Your task to perform on an android device: turn on priority inbox in the gmail app Image 0: 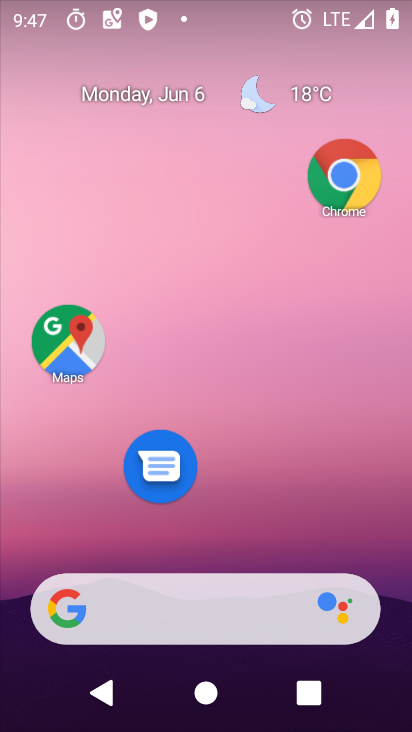
Step 0: drag from (212, 558) to (231, 174)
Your task to perform on an android device: turn on priority inbox in the gmail app Image 1: 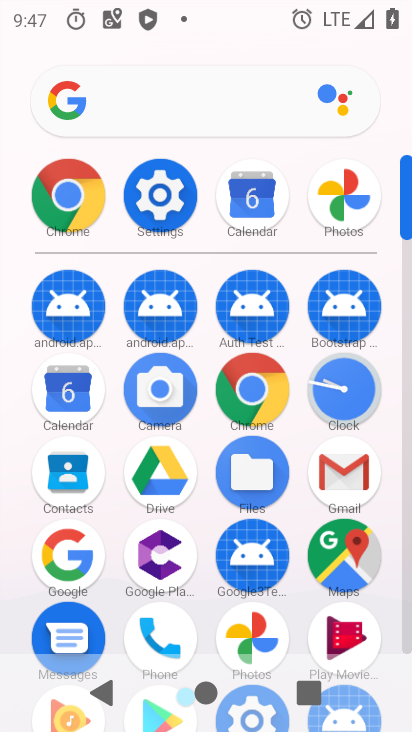
Step 1: click (355, 468)
Your task to perform on an android device: turn on priority inbox in the gmail app Image 2: 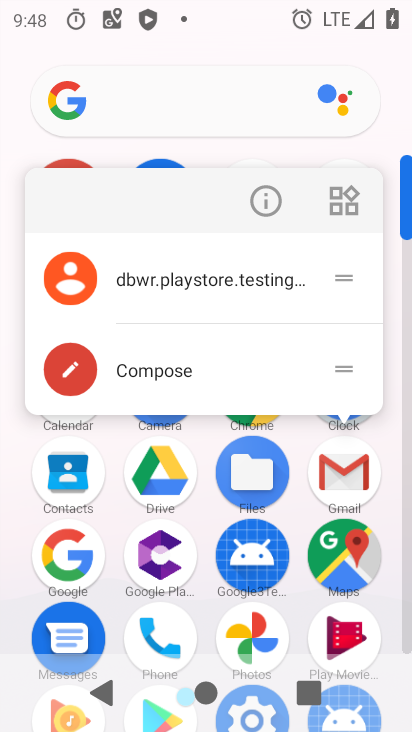
Step 2: click (259, 210)
Your task to perform on an android device: turn on priority inbox in the gmail app Image 3: 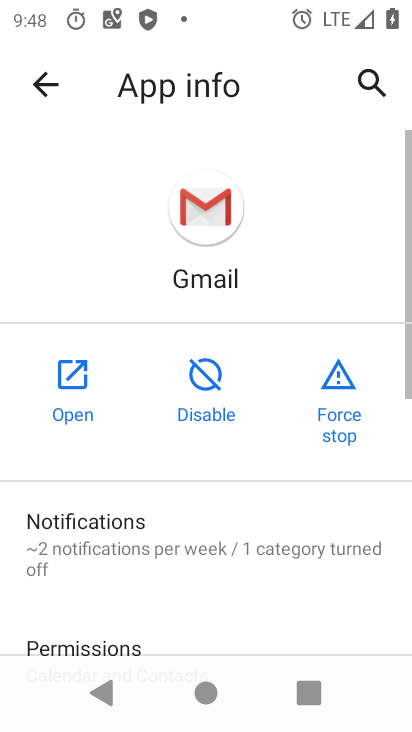
Step 3: click (75, 357)
Your task to perform on an android device: turn on priority inbox in the gmail app Image 4: 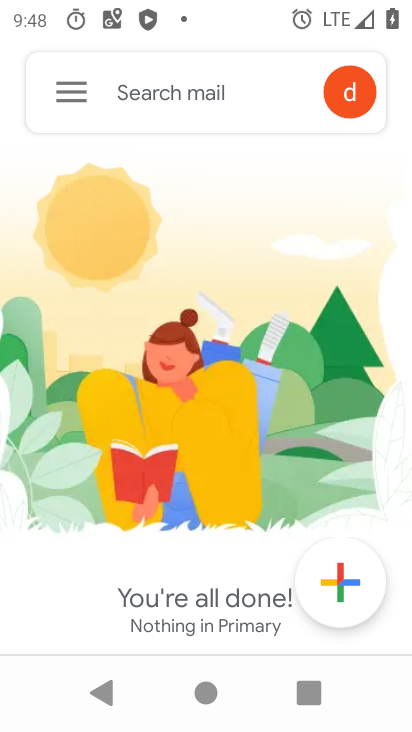
Step 4: click (50, 91)
Your task to perform on an android device: turn on priority inbox in the gmail app Image 5: 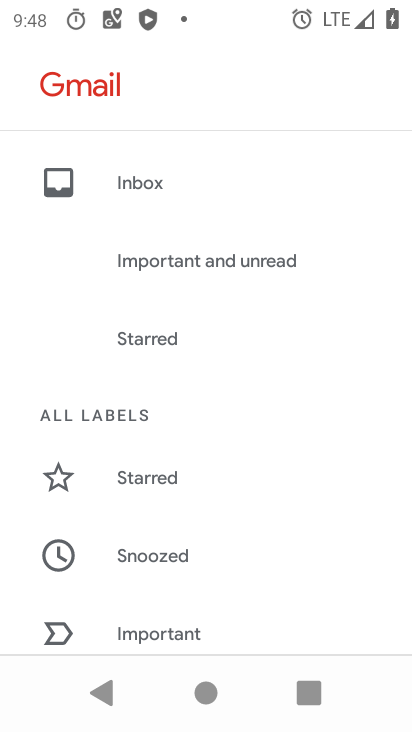
Step 5: drag from (188, 568) to (317, 25)
Your task to perform on an android device: turn on priority inbox in the gmail app Image 6: 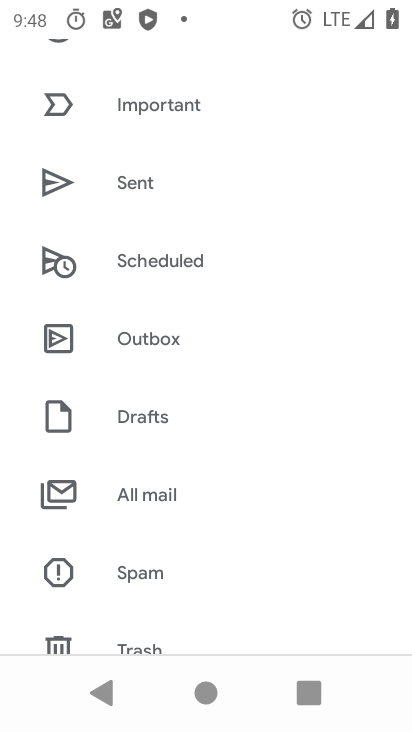
Step 6: drag from (203, 568) to (234, 115)
Your task to perform on an android device: turn on priority inbox in the gmail app Image 7: 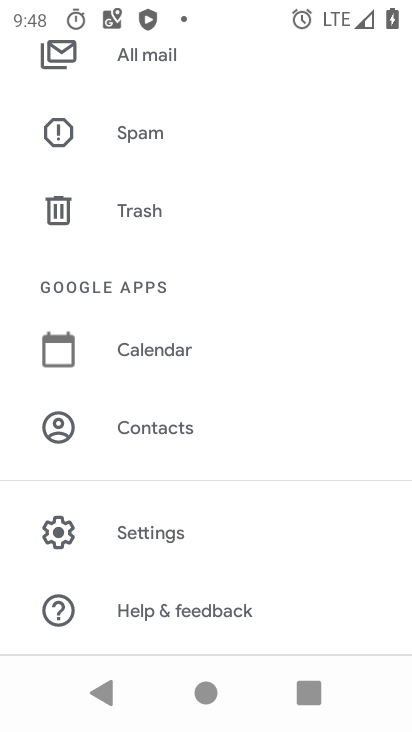
Step 7: click (142, 537)
Your task to perform on an android device: turn on priority inbox in the gmail app Image 8: 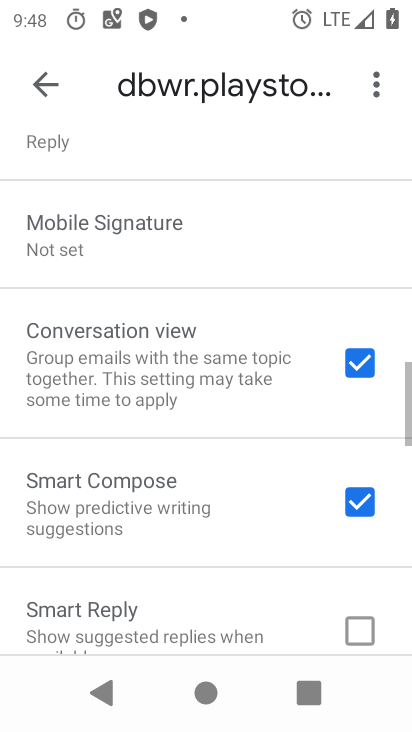
Step 8: drag from (121, 546) to (207, 722)
Your task to perform on an android device: turn on priority inbox in the gmail app Image 9: 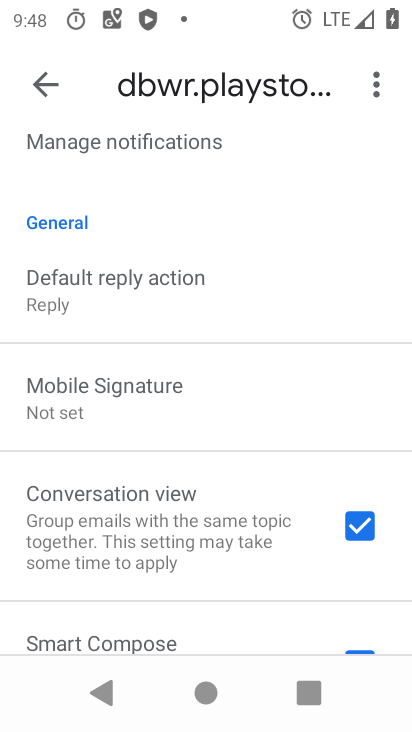
Step 9: drag from (145, 280) to (228, 731)
Your task to perform on an android device: turn on priority inbox in the gmail app Image 10: 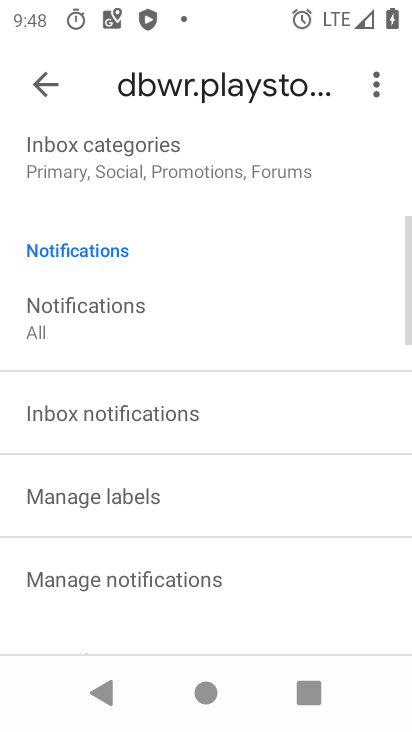
Step 10: drag from (178, 260) to (281, 731)
Your task to perform on an android device: turn on priority inbox in the gmail app Image 11: 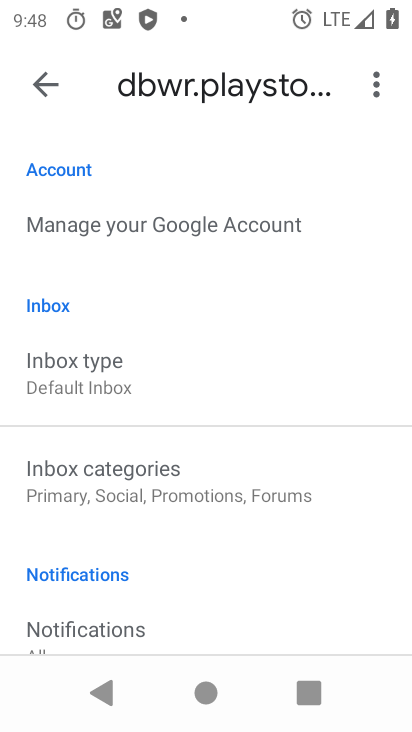
Step 11: click (109, 377)
Your task to perform on an android device: turn on priority inbox in the gmail app Image 12: 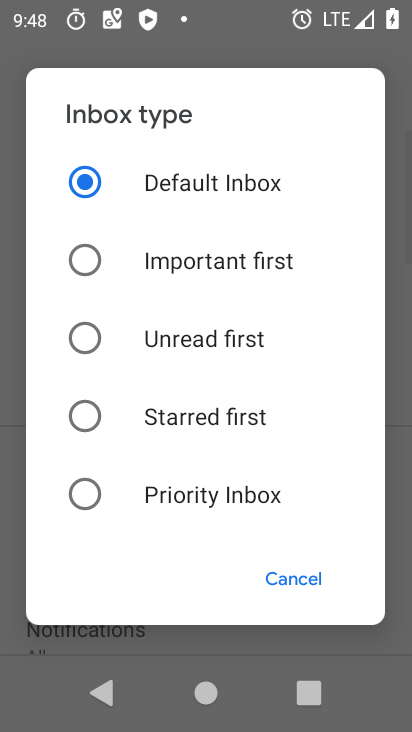
Step 12: click (106, 497)
Your task to perform on an android device: turn on priority inbox in the gmail app Image 13: 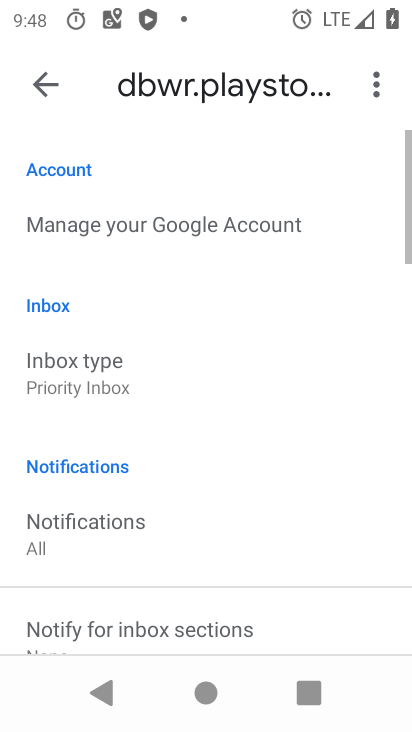
Step 13: task complete